Your task to perform on an android device: turn on showing notifications on the lock screen Image 0: 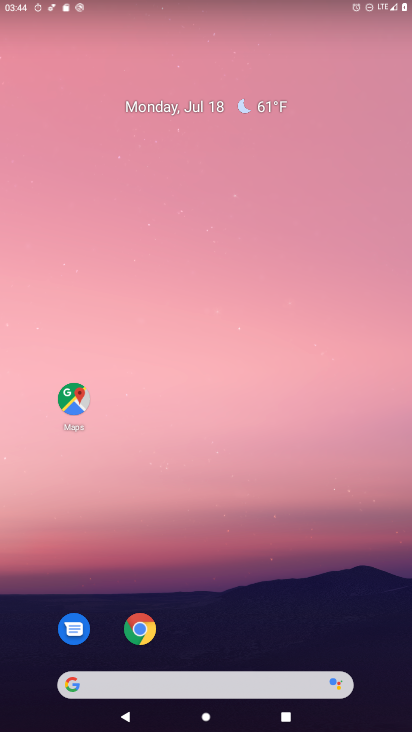
Step 0: drag from (214, 689) to (183, 238)
Your task to perform on an android device: turn on showing notifications on the lock screen Image 1: 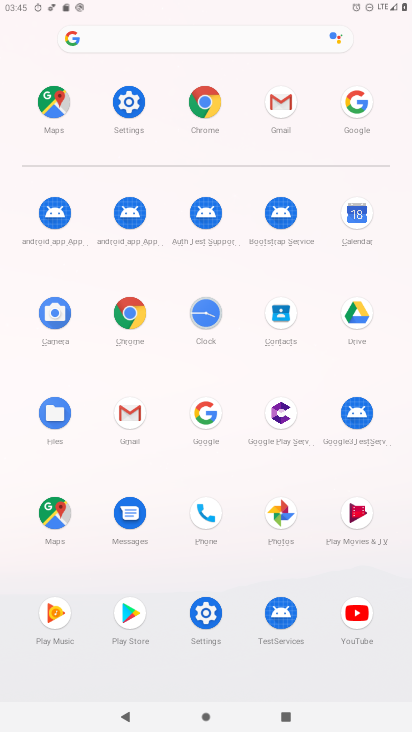
Step 1: click (127, 102)
Your task to perform on an android device: turn on showing notifications on the lock screen Image 2: 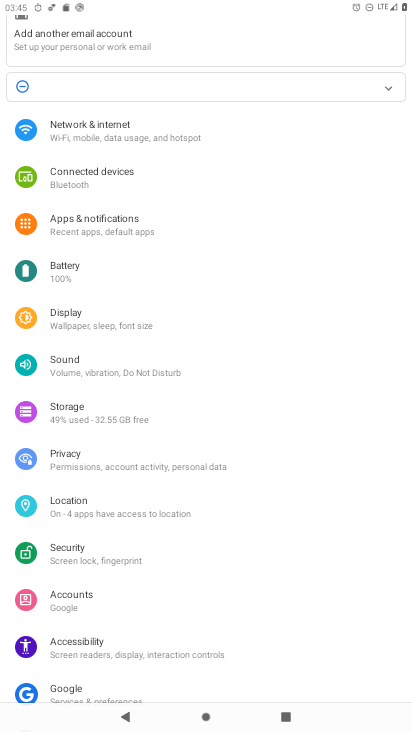
Step 2: click (98, 238)
Your task to perform on an android device: turn on showing notifications on the lock screen Image 3: 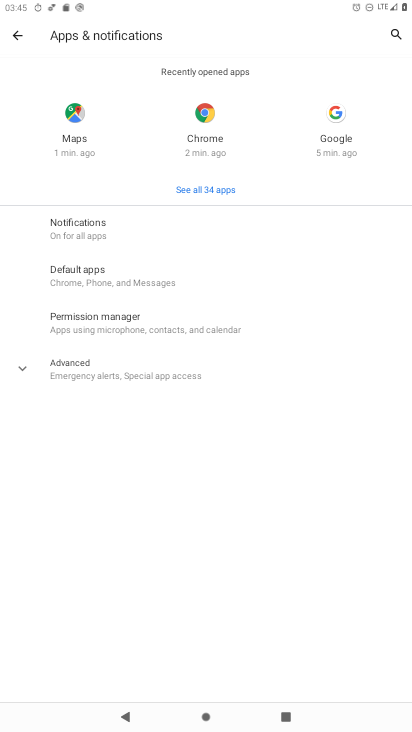
Step 3: click (83, 227)
Your task to perform on an android device: turn on showing notifications on the lock screen Image 4: 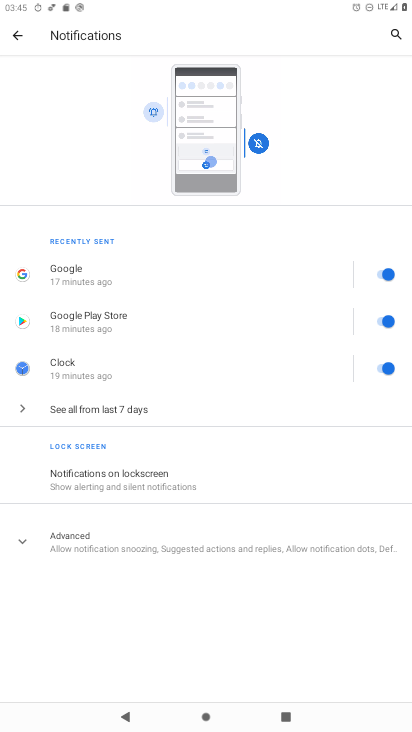
Step 4: click (100, 475)
Your task to perform on an android device: turn on showing notifications on the lock screen Image 5: 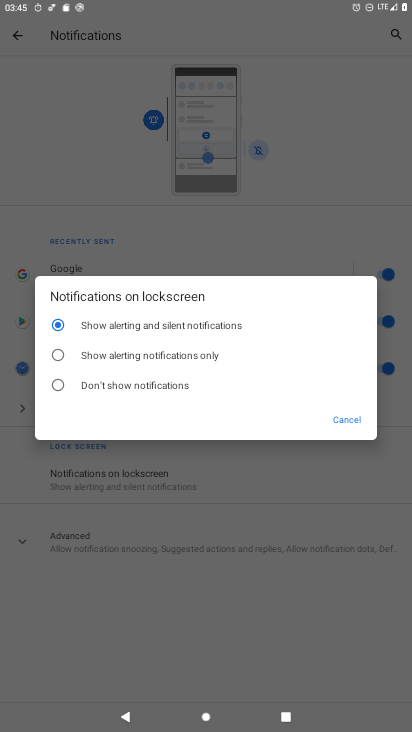
Step 5: click (59, 325)
Your task to perform on an android device: turn on showing notifications on the lock screen Image 6: 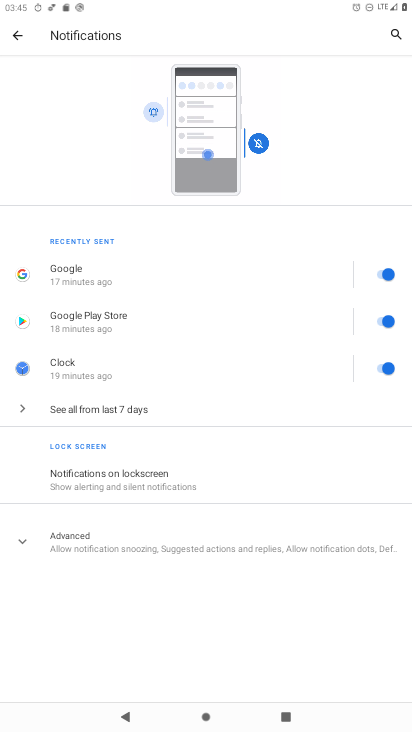
Step 6: task complete